Your task to perform on an android device: Search for vegetarian restaurants on Maps Image 0: 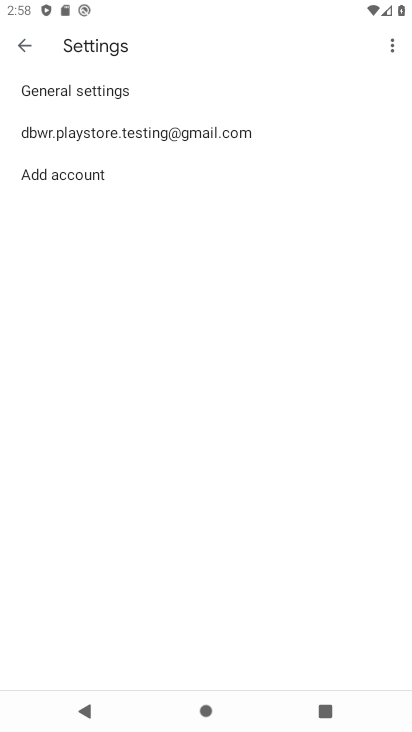
Step 0: press back button
Your task to perform on an android device: Search for vegetarian restaurants on Maps Image 1: 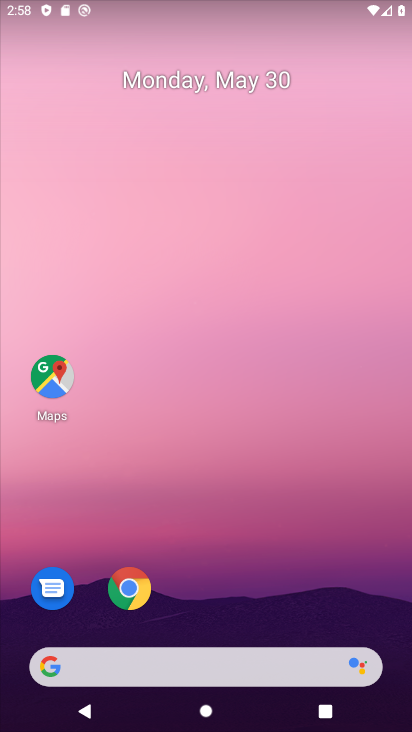
Step 1: drag from (242, 569) to (218, 71)
Your task to perform on an android device: Search for vegetarian restaurants on Maps Image 2: 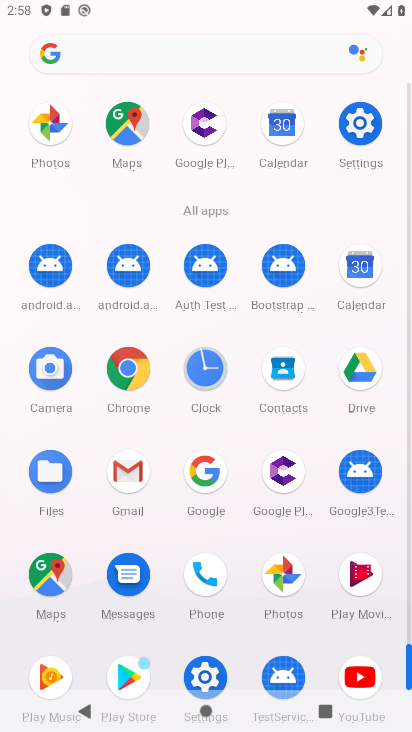
Step 2: click (42, 574)
Your task to perform on an android device: Search for vegetarian restaurants on Maps Image 3: 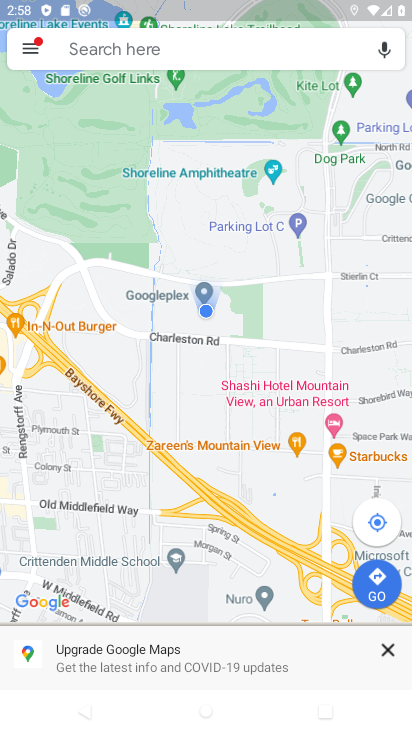
Step 3: click (234, 47)
Your task to perform on an android device: Search for vegetarian restaurants on Maps Image 4: 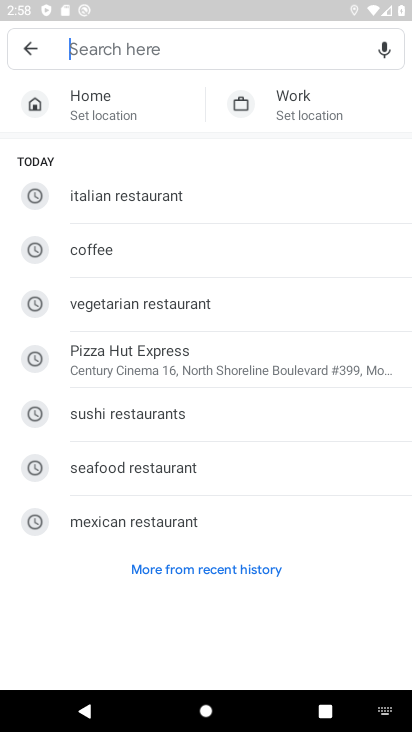
Step 4: click (147, 293)
Your task to perform on an android device: Search for vegetarian restaurants on Maps Image 5: 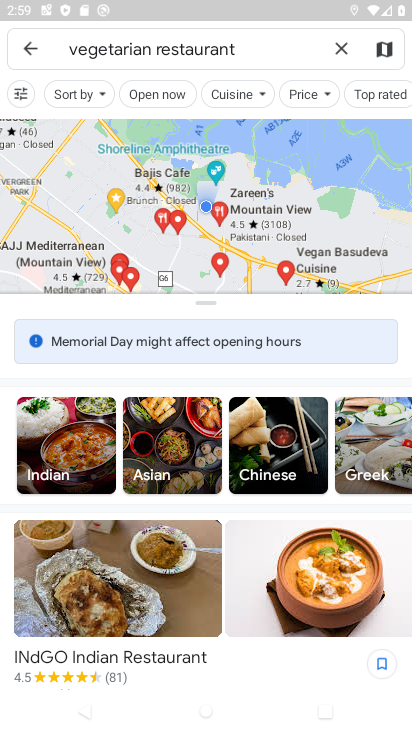
Step 5: task complete